Your task to perform on an android device: turn on wifi Image 0: 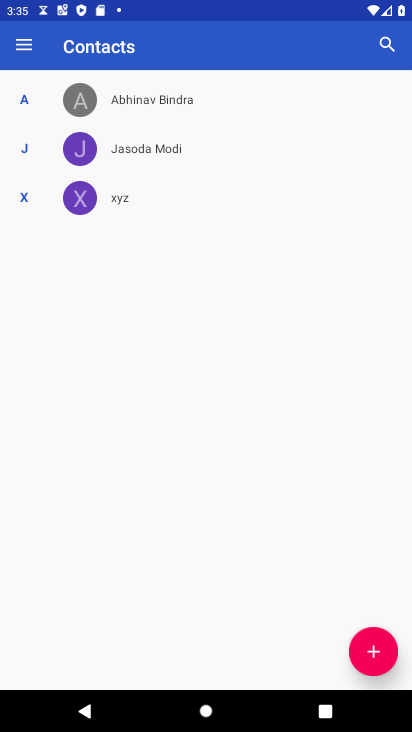
Step 0: press home button
Your task to perform on an android device: turn on wifi Image 1: 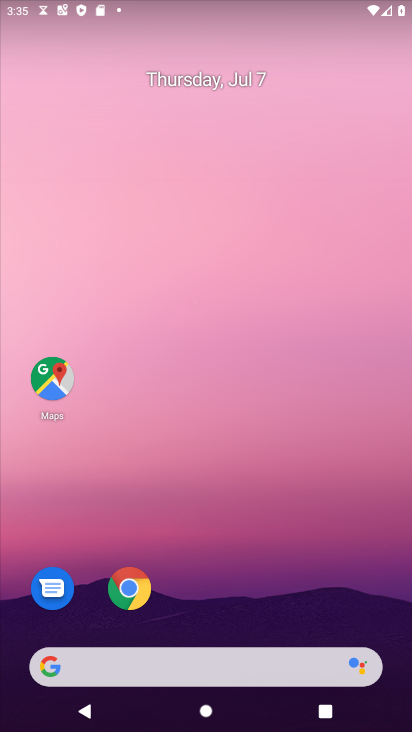
Step 1: drag from (264, 624) to (203, 64)
Your task to perform on an android device: turn on wifi Image 2: 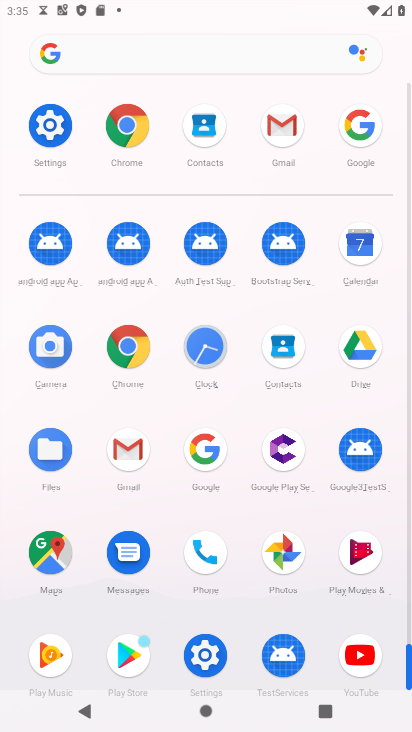
Step 2: click (50, 122)
Your task to perform on an android device: turn on wifi Image 3: 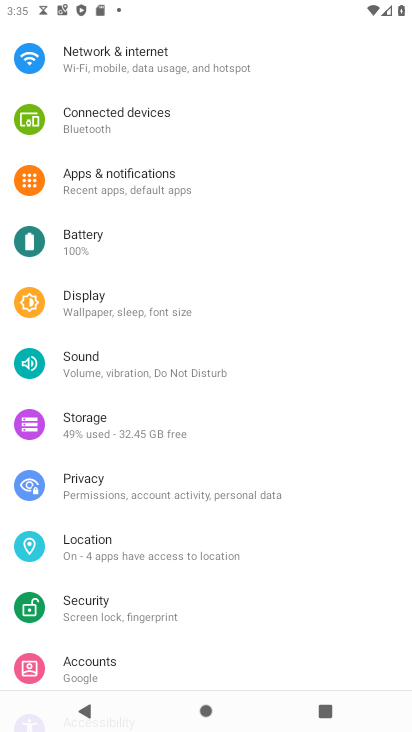
Step 3: click (160, 65)
Your task to perform on an android device: turn on wifi Image 4: 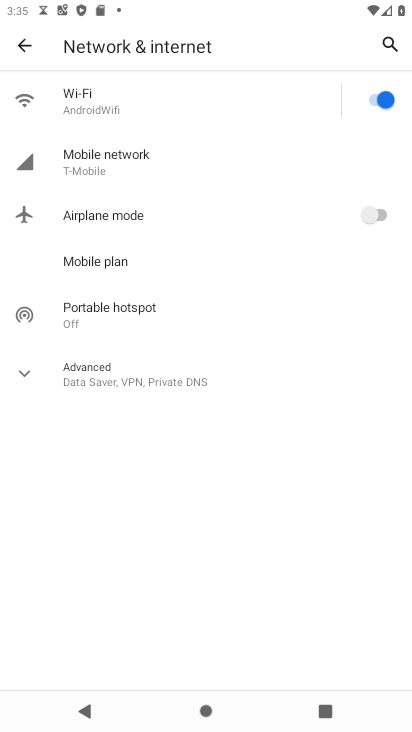
Step 4: task complete